Your task to perform on an android device: Open Yahoo.com Image 0: 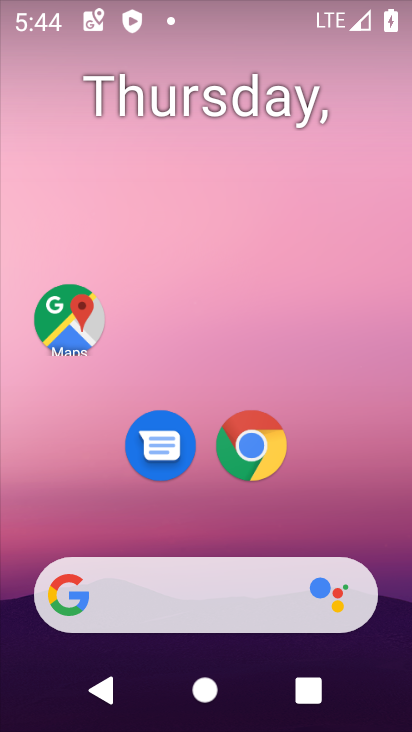
Step 0: click (270, 437)
Your task to perform on an android device: Open Yahoo.com Image 1: 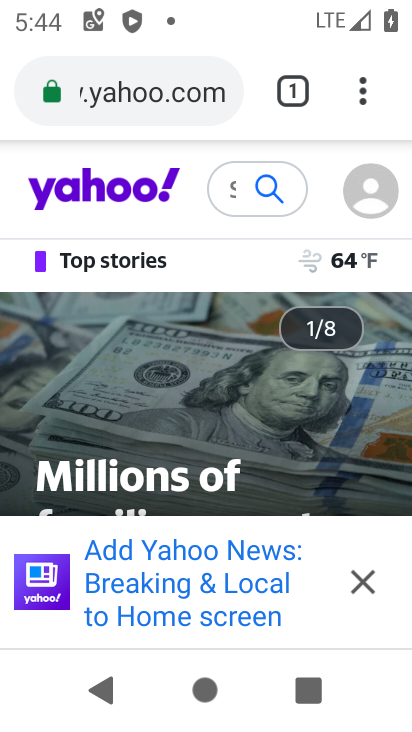
Step 1: drag from (363, 88) to (133, 191)
Your task to perform on an android device: Open Yahoo.com Image 2: 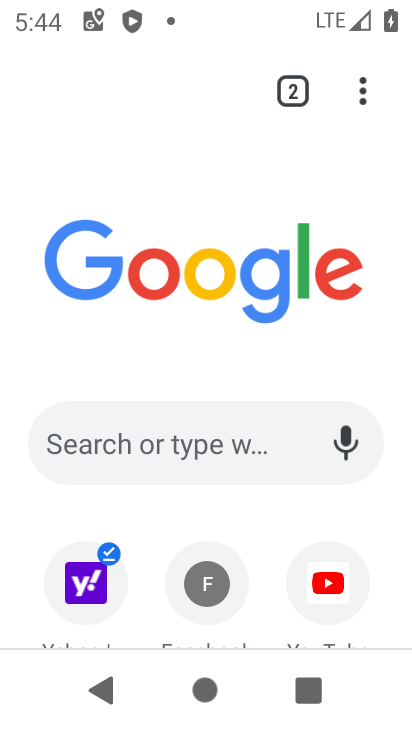
Step 2: click (206, 442)
Your task to perform on an android device: Open Yahoo.com Image 3: 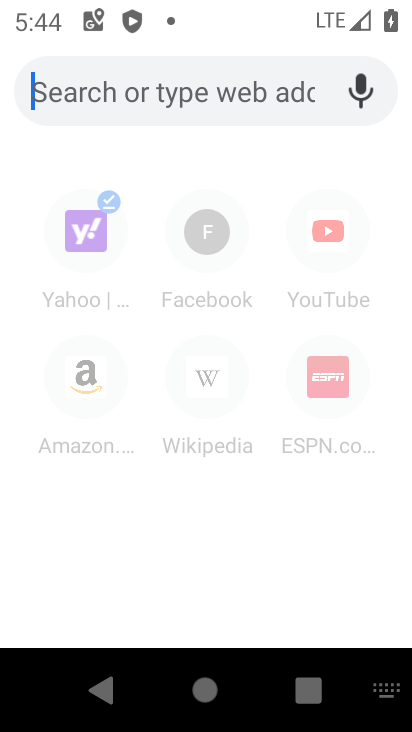
Step 3: type "Yahoo.com"
Your task to perform on an android device: Open Yahoo.com Image 4: 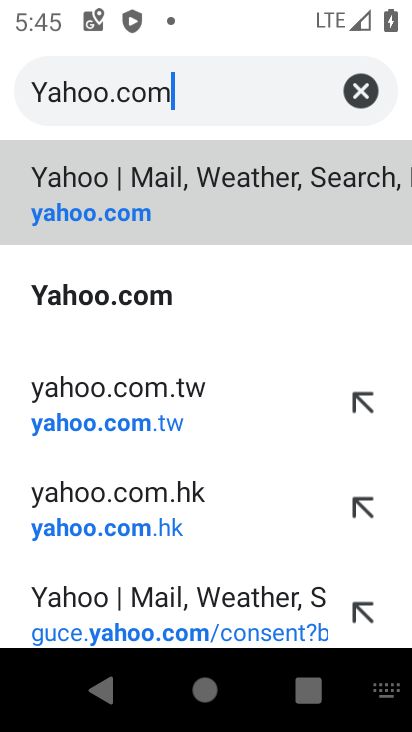
Step 4: click (85, 214)
Your task to perform on an android device: Open Yahoo.com Image 5: 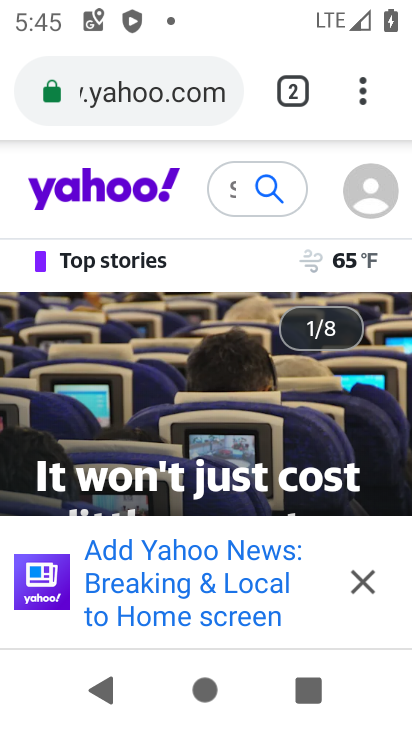
Step 5: task complete